Your task to perform on an android device: See recent photos Image 0: 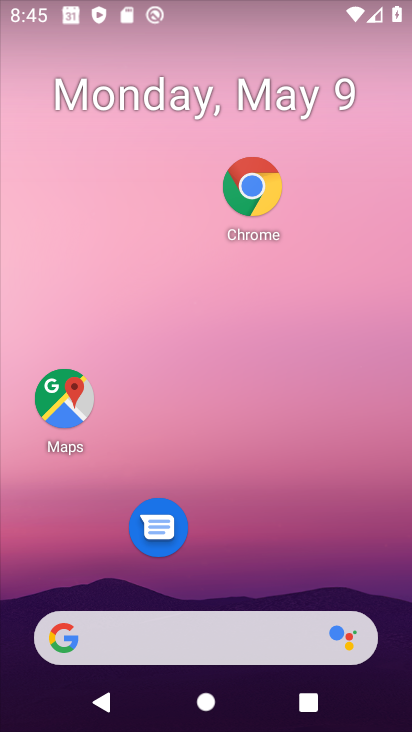
Step 0: drag from (203, 584) to (232, 27)
Your task to perform on an android device: See recent photos Image 1: 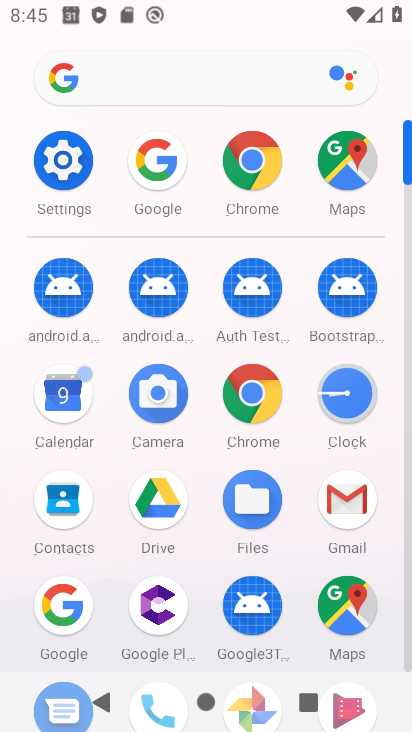
Step 1: drag from (202, 468) to (199, 116)
Your task to perform on an android device: See recent photos Image 2: 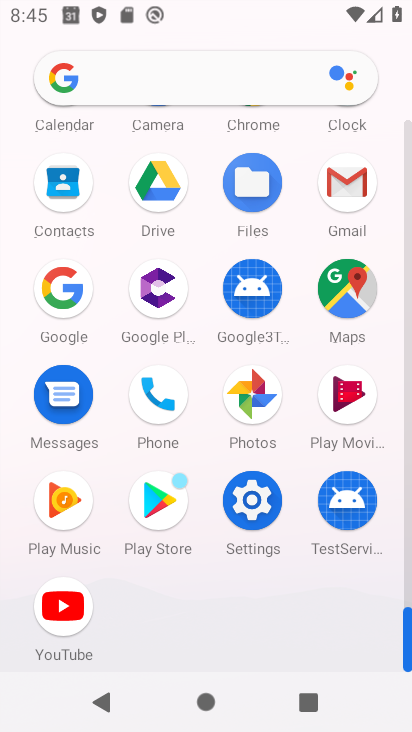
Step 2: click (250, 385)
Your task to perform on an android device: See recent photos Image 3: 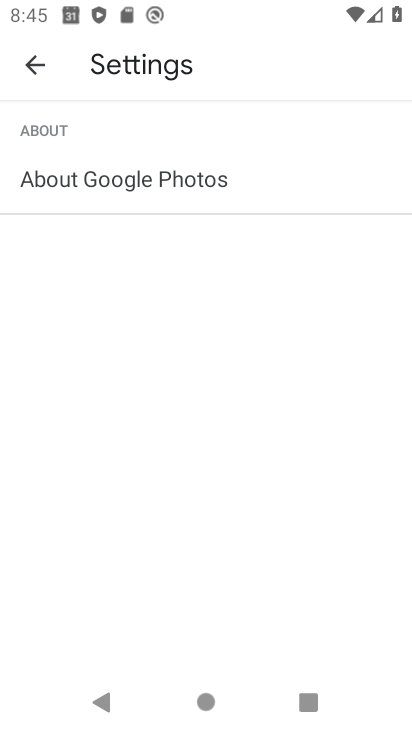
Step 3: press back button
Your task to perform on an android device: See recent photos Image 4: 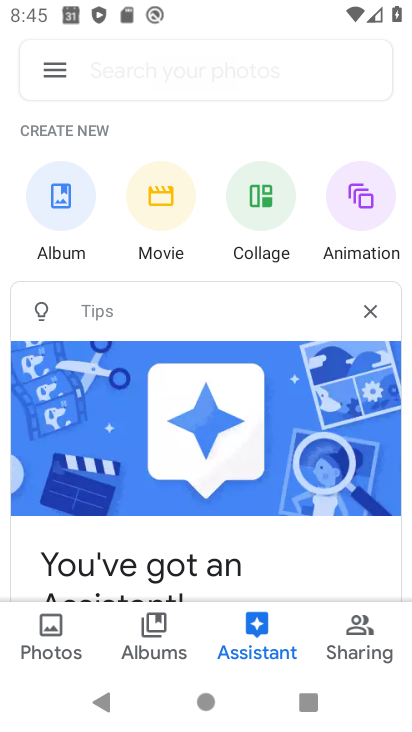
Step 4: click (44, 615)
Your task to perform on an android device: See recent photos Image 5: 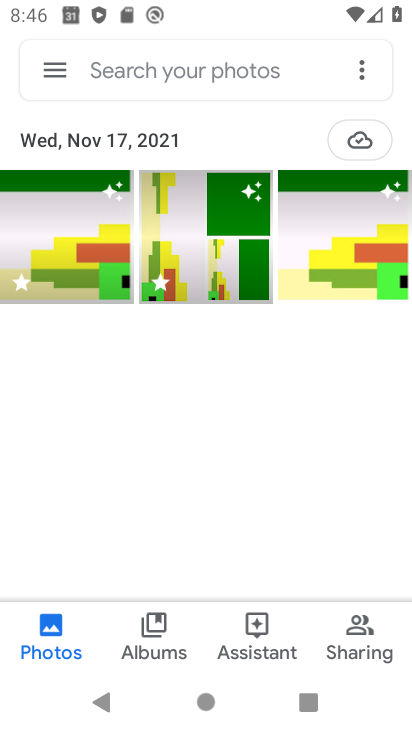
Step 5: task complete